Your task to perform on an android device: Open calendar and show me the third week of next month Image 0: 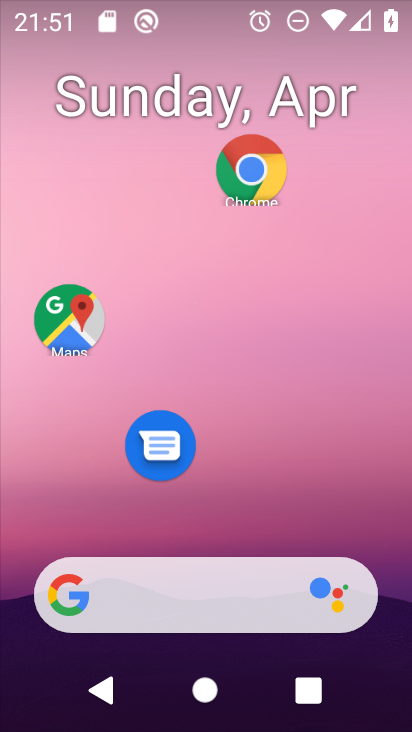
Step 0: press home button
Your task to perform on an android device: Open calendar and show me the third week of next month Image 1: 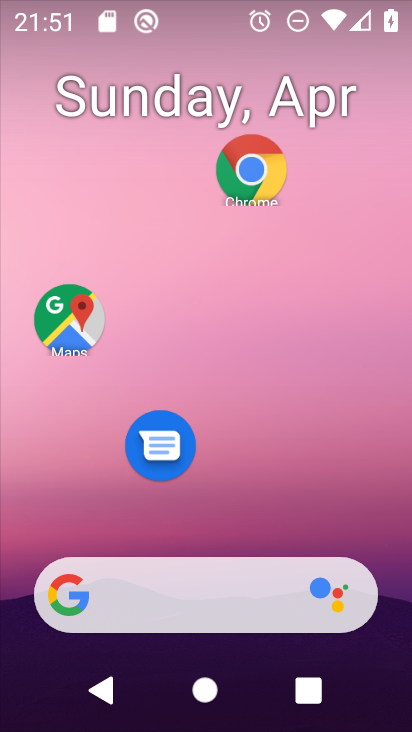
Step 1: drag from (272, 478) to (245, 67)
Your task to perform on an android device: Open calendar and show me the third week of next month Image 2: 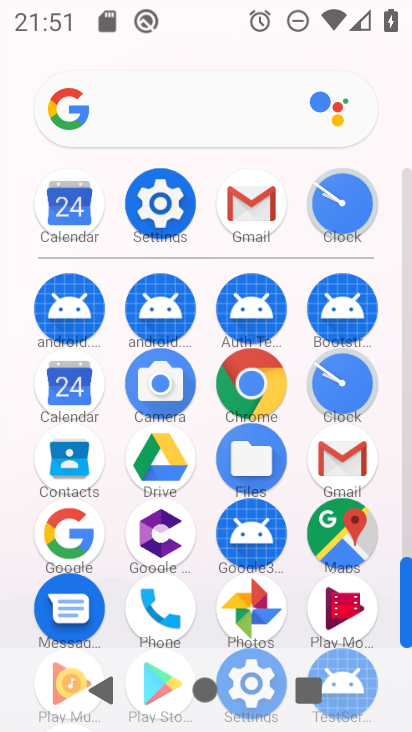
Step 2: click (67, 390)
Your task to perform on an android device: Open calendar and show me the third week of next month Image 3: 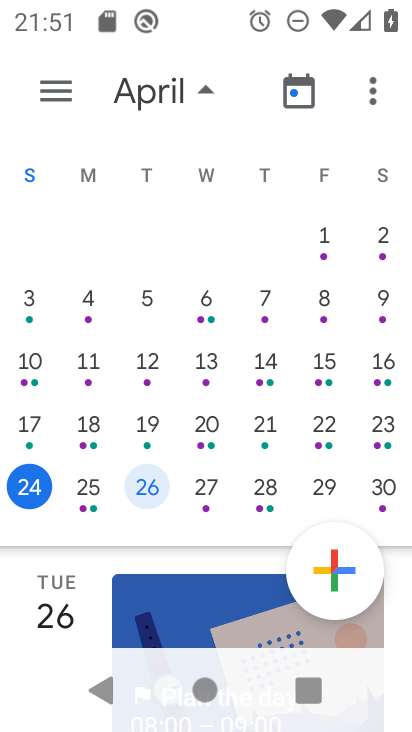
Step 3: drag from (356, 501) to (0, 519)
Your task to perform on an android device: Open calendar and show me the third week of next month Image 4: 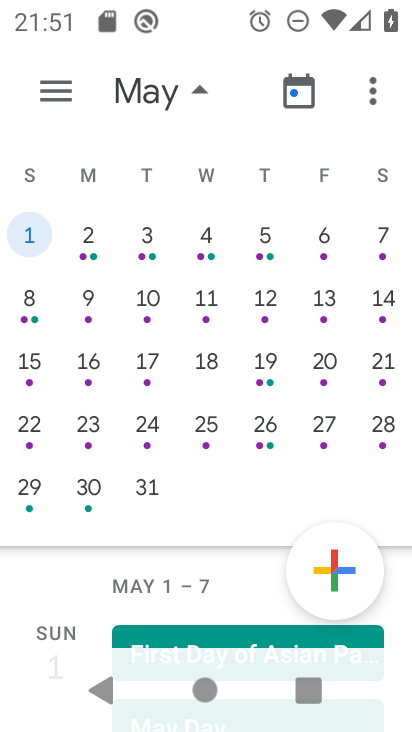
Step 4: click (147, 357)
Your task to perform on an android device: Open calendar and show me the third week of next month Image 5: 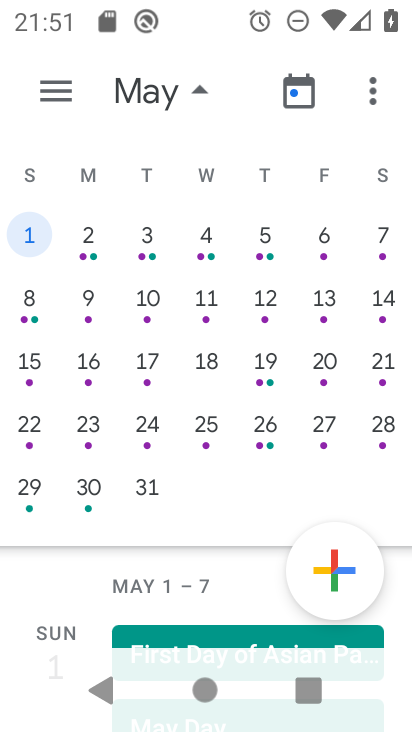
Step 5: click (160, 365)
Your task to perform on an android device: Open calendar and show me the third week of next month Image 6: 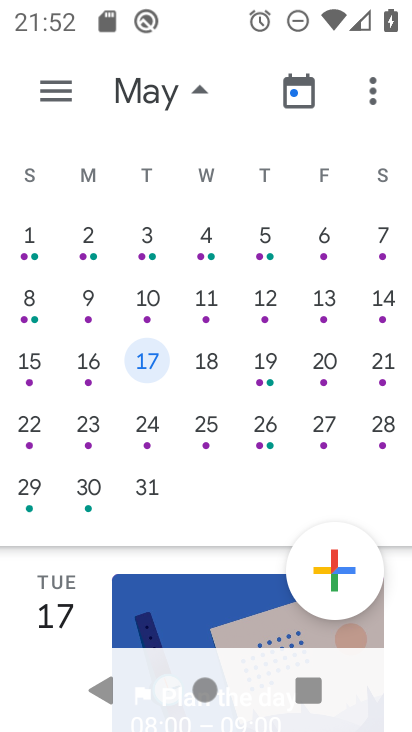
Step 6: task complete